Your task to perform on an android device: Open CNN.com Image 0: 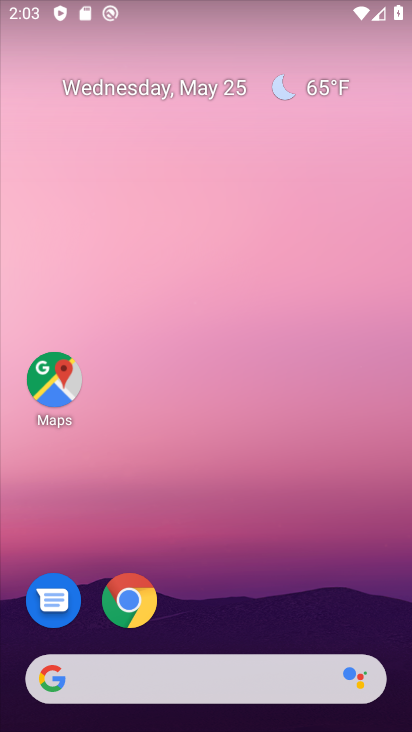
Step 0: click (129, 602)
Your task to perform on an android device: Open CNN.com Image 1: 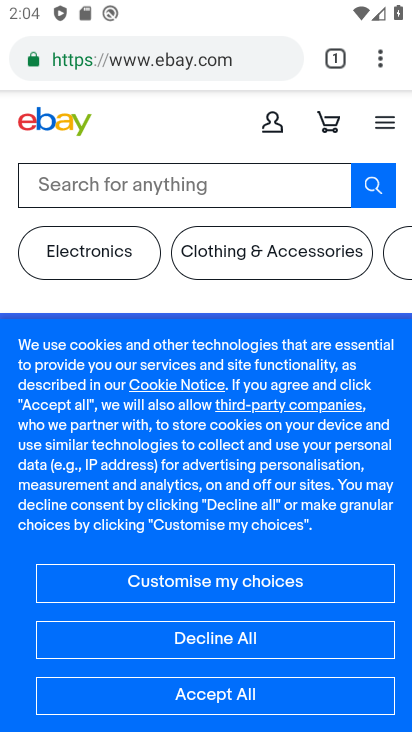
Step 1: click (211, 55)
Your task to perform on an android device: Open CNN.com Image 2: 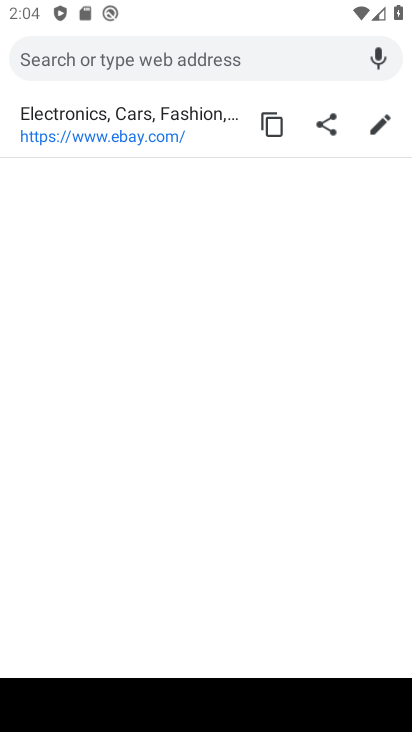
Step 2: type "cnn.com"
Your task to perform on an android device: Open CNN.com Image 3: 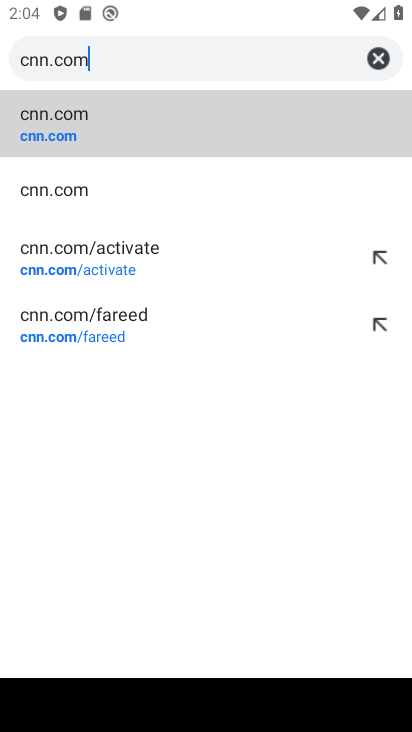
Step 3: click (151, 139)
Your task to perform on an android device: Open CNN.com Image 4: 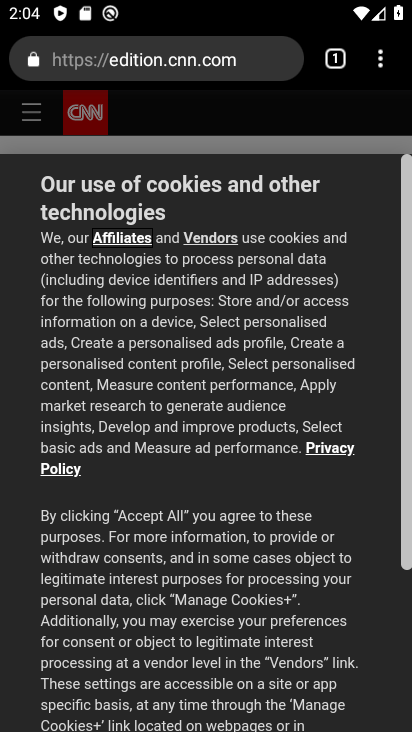
Step 4: task complete